Your task to perform on an android device: turn notification dots on Image 0: 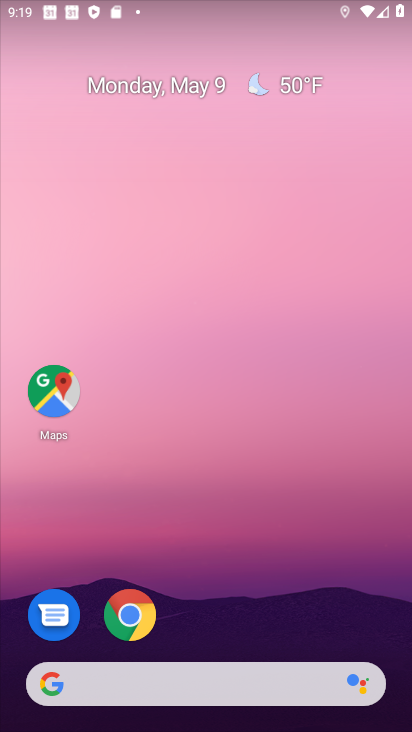
Step 0: click (338, 18)
Your task to perform on an android device: turn notification dots on Image 1: 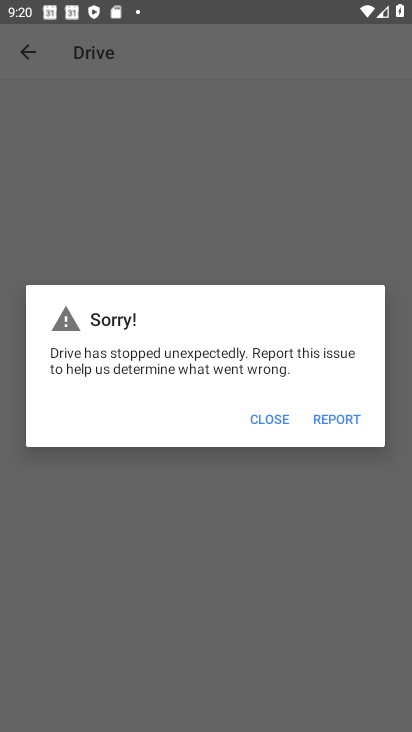
Step 1: press back button
Your task to perform on an android device: turn notification dots on Image 2: 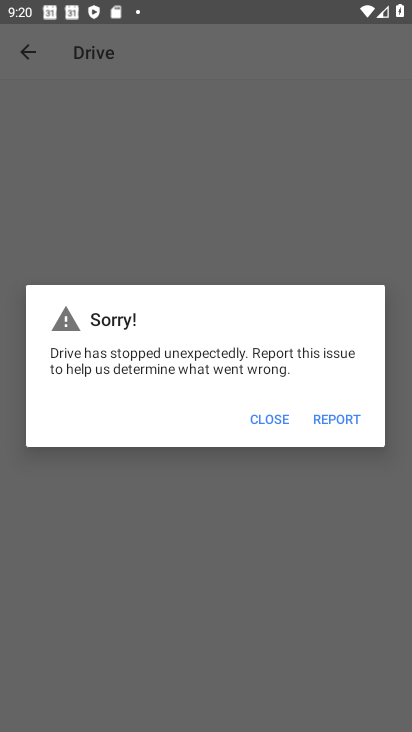
Step 2: press back button
Your task to perform on an android device: turn notification dots on Image 3: 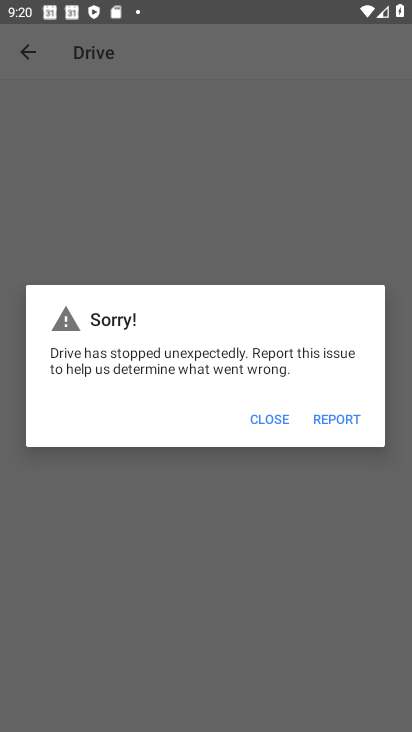
Step 3: press home button
Your task to perform on an android device: turn notification dots on Image 4: 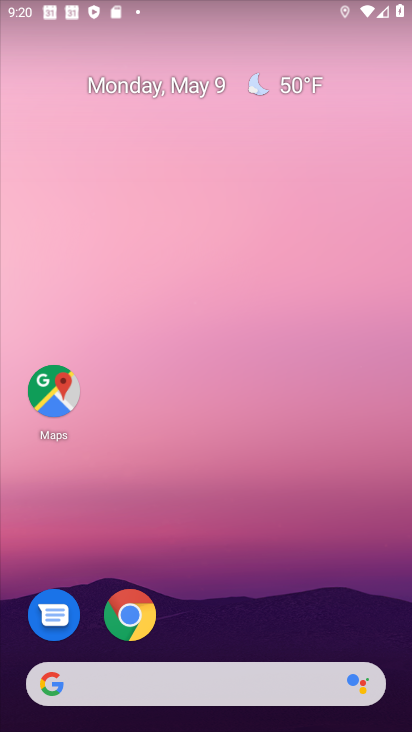
Step 4: drag from (231, 609) to (249, 1)
Your task to perform on an android device: turn notification dots on Image 5: 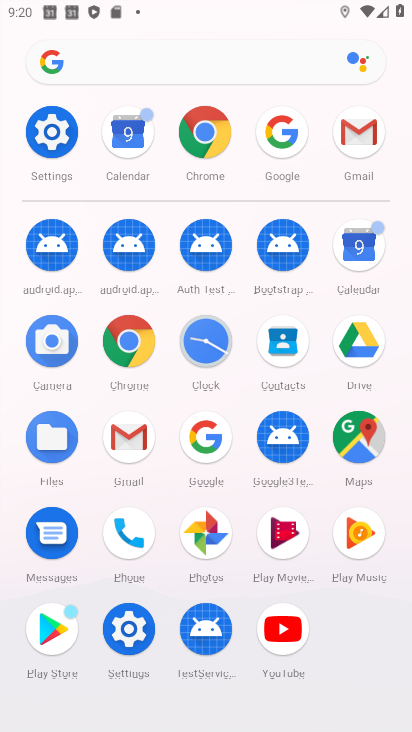
Step 5: click (129, 625)
Your task to perform on an android device: turn notification dots on Image 6: 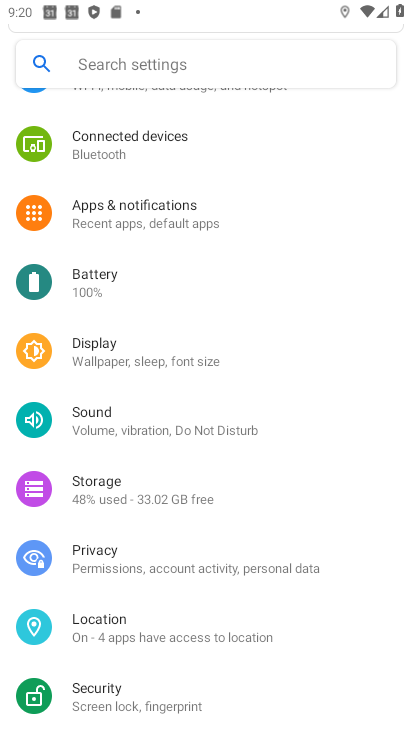
Step 6: click (173, 218)
Your task to perform on an android device: turn notification dots on Image 7: 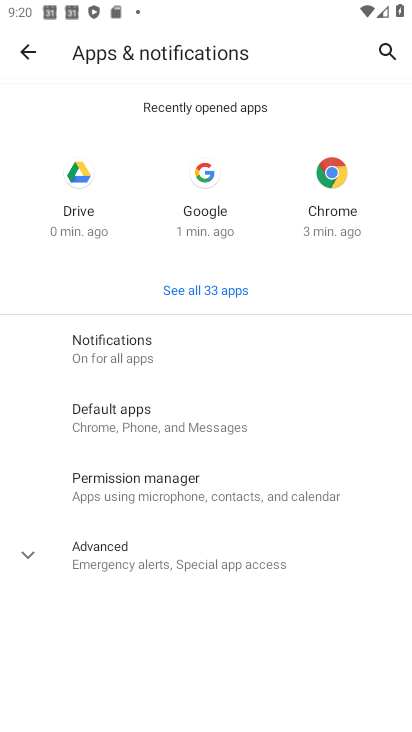
Step 7: click (116, 552)
Your task to perform on an android device: turn notification dots on Image 8: 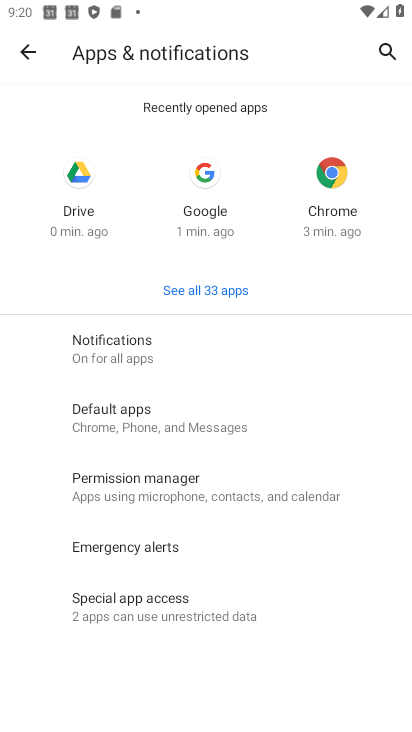
Step 8: click (195, 344)
Your task to perform on an android device: turn notification dots on Image 9: 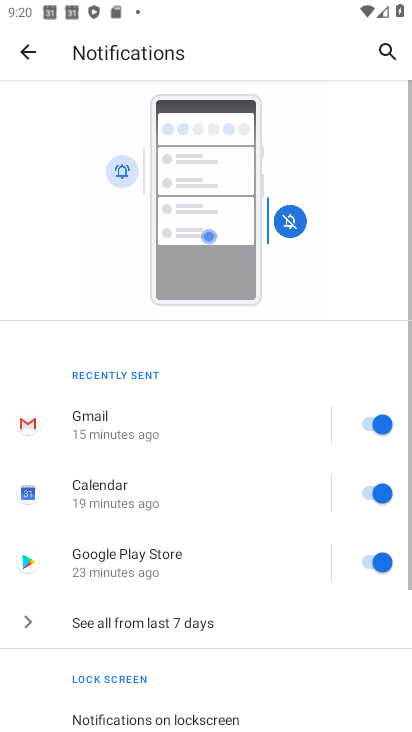
Step 9: drag from (178, 694) to (231, 156)
Your task to perform on an android device: turn notification dots on Image 10: 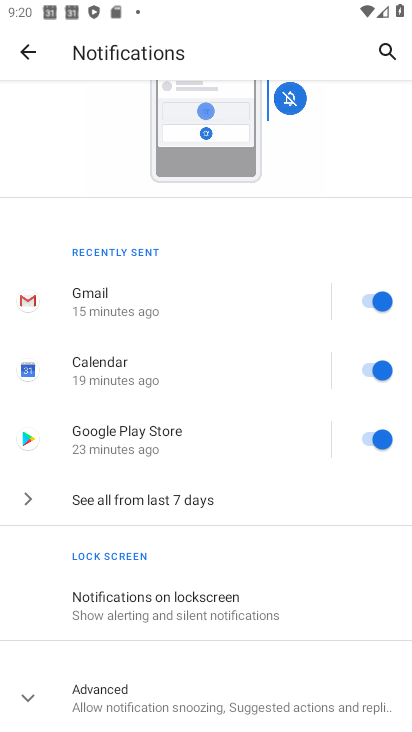
Step 10: click (110, 692)
Your task to perform on an android device: turn notification dots on Image 11: 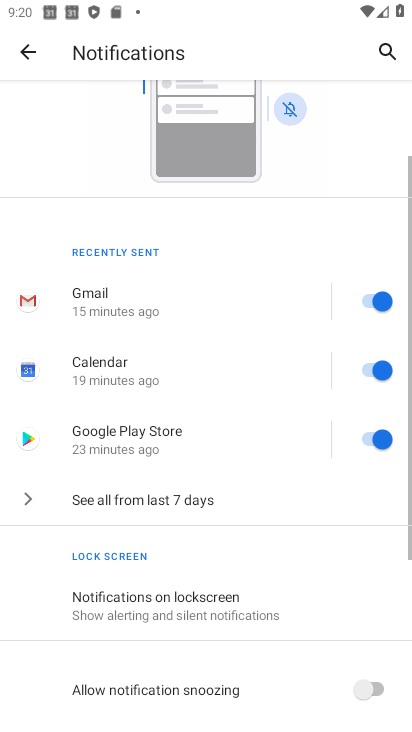
Step 11: task complete